Your task to perform on an android device: open the mobile data screen to see how much data has been used Image 0: 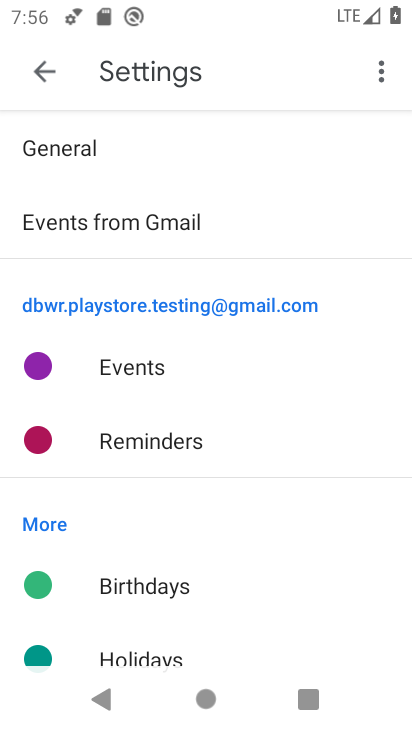
Step 0: press home button
Your task to perform on an android device: open the mobile data screen to see how much data has been used Image 1: 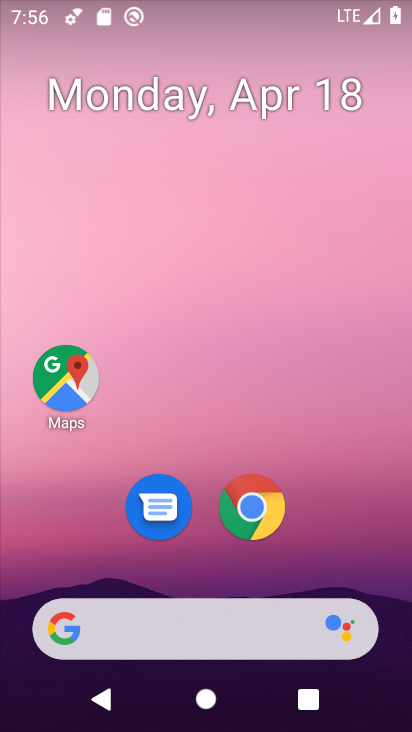
Step 1: drag from (10, 511) to (207, 51)
Your task to perform on an android device: open the mobile data screen to see how much data has been used Image 2: 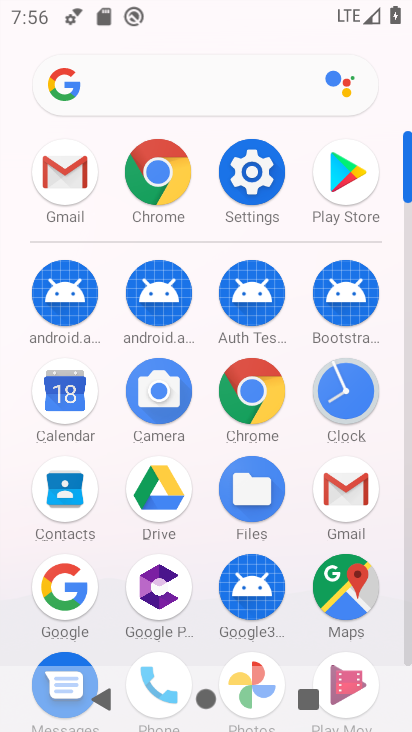
Step 2: click (233, 177)
Your task to perform on an android device: open the mobile data screen to see how much data has been used Image 3: 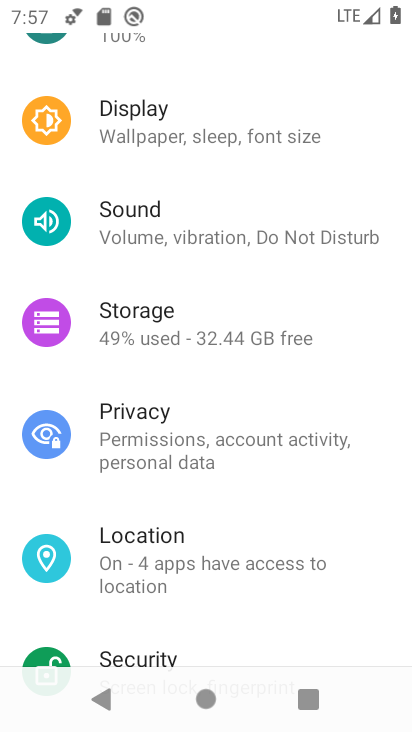
Step 3: drag from (231, 174) to (212, 654)
Your task to perform on an android device: open the mobile data screen to see how much data has been used Image 4: 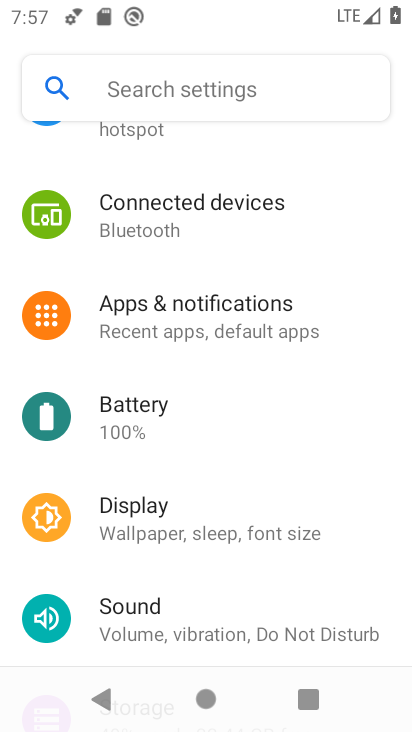
Step 4: drag from (210, 169) to (237, 622)
Your task to perform on an android device: open the mobile data screen to see how much data has been used Image 5: 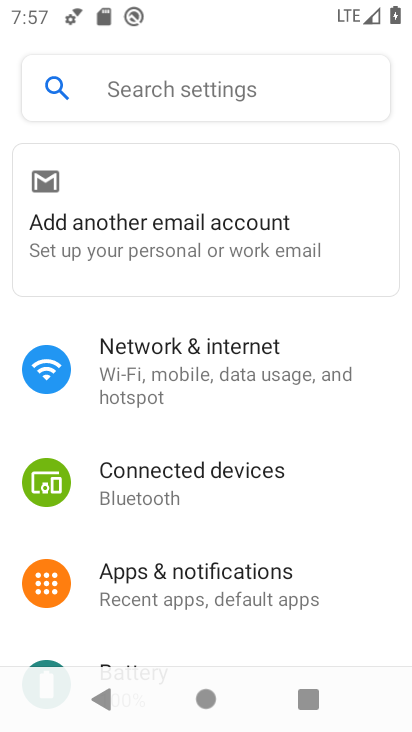
Step 5: click (193, 361)
Your task to perform on an android device: open the mobile data screen to see how much data has been used Image 6: 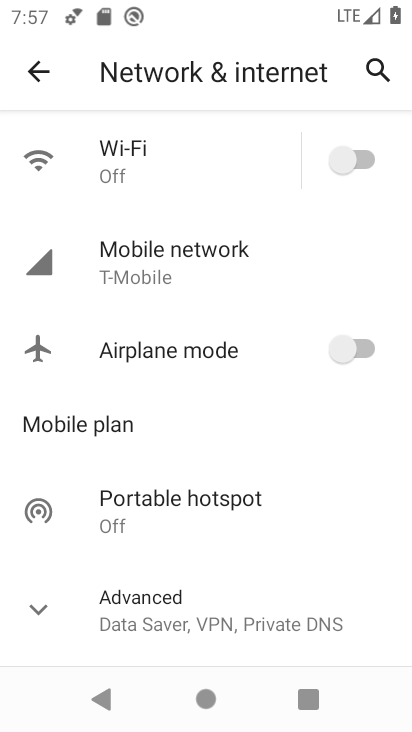
Step 6: click (197, 277)
Your task to perform on an android device: open the mobile data screen to see how much data has been used Image 7: 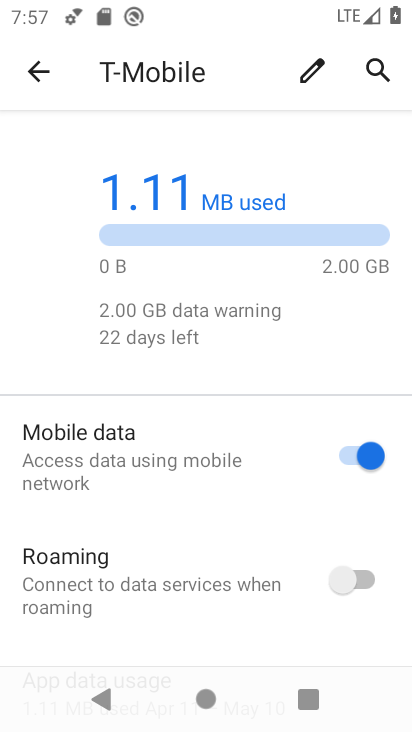
Step 7: drag from (163, 499) to (250, 139)
Your task to perform on an android device: open the mobile data screen to see how much data has been used Image 8: 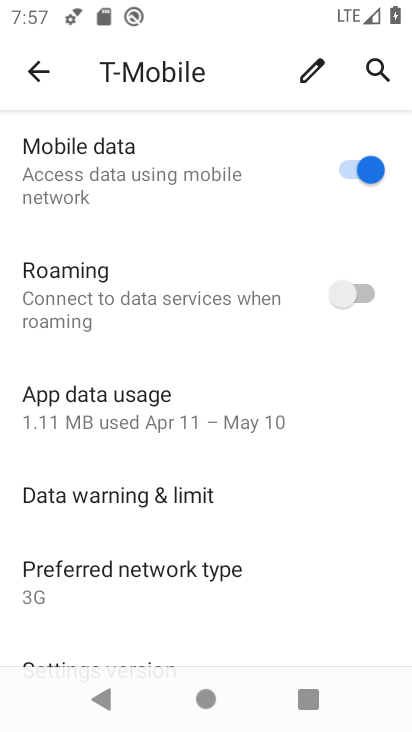
Step 8: click (206, 392)
Your task to perform on an android device: open the mobile data screen to see how much data has been used Image 9: 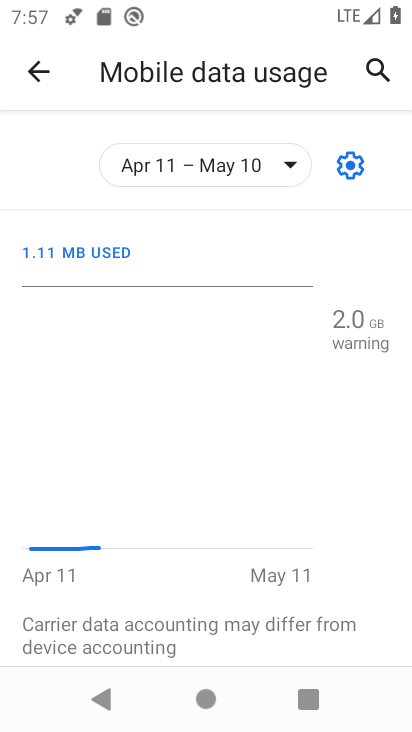
Step 9: task complete